Your task to perform on an android device: Go to wifi settings Image 0: 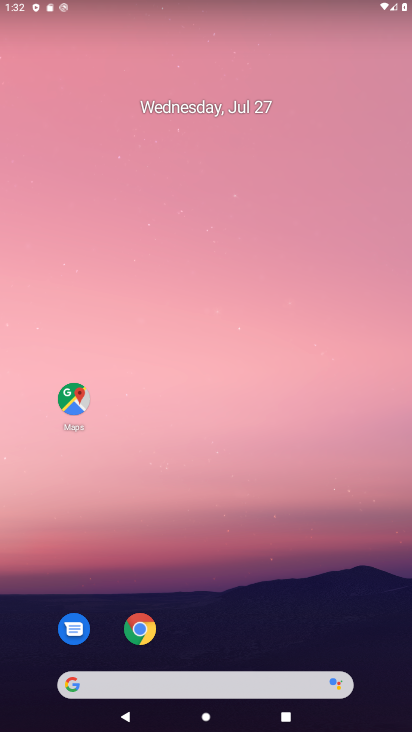
Step 0: drag from (225, 633) to (238, 137)
Your task to perform on an android device: Go to wifi settings Image 1: 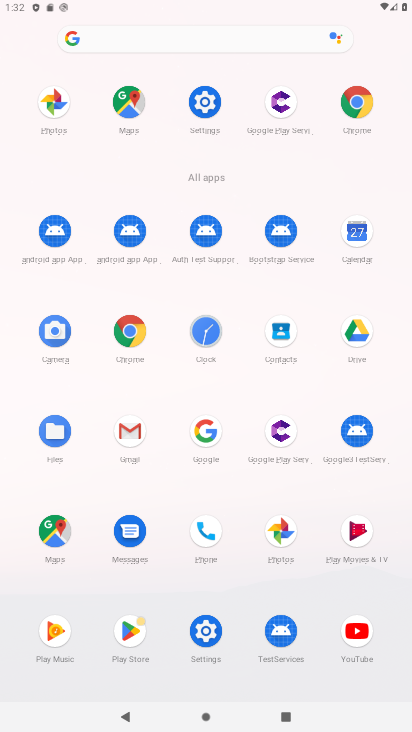
Step 1: click (209, 90)
Your task to perform on an android device: Go to wifi settings Image 2: 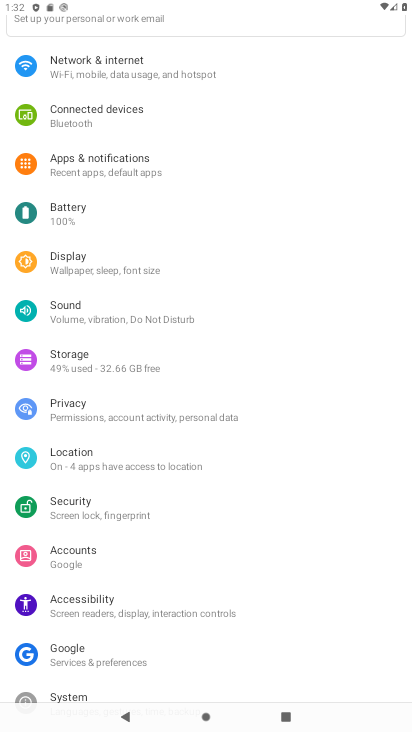
Step 2: click (65, 75)
Your task to perform on an android device: Go to wifi settings Image 3: 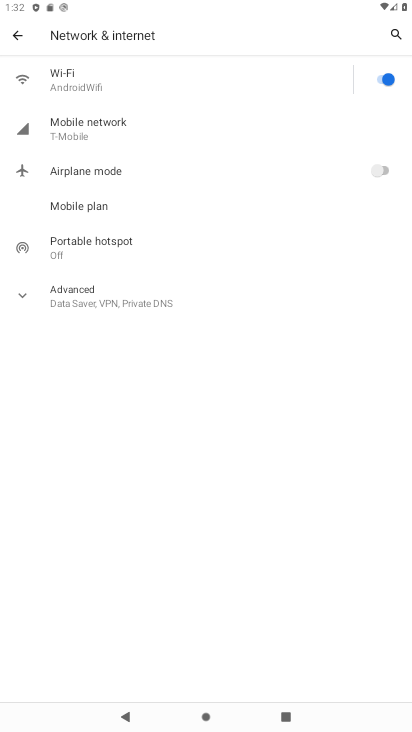
Step 3: click (72, 88)
Your task to perform on an android device: Go to wifi settings Image 4: 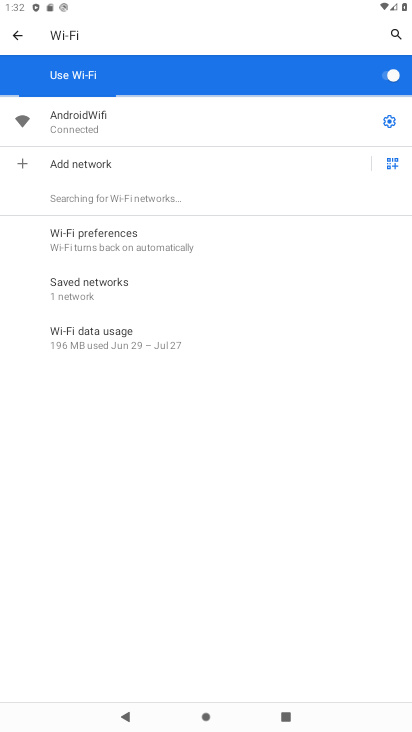
Step 4: task complete